Your task to perform on an android device: Search for 5 star sushi restaurants on Maps Image 0: 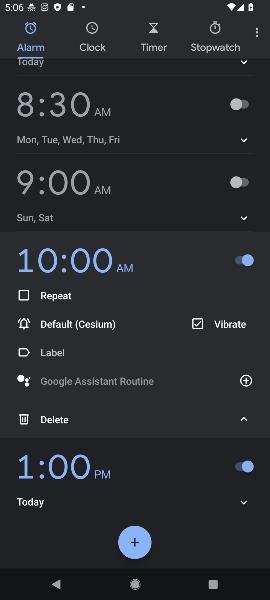
Step 0: press home button
Your task to perform on an android device: Search for 5 star sushi restaurants on Maps Image 1: 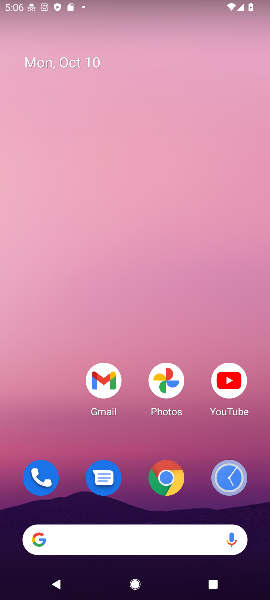
Step 1: drag from (124, 495) to (178, 90)
Your task to perform on an android device: Search for 5 star sushi restaurants on Maps Image 2: 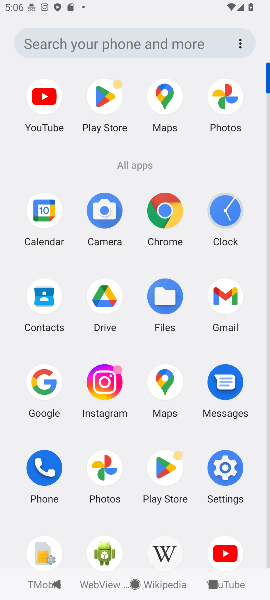
Step 2: click (164, 97)
Your task to perform on an android device: Search for 5 star sushi restaurants on Maps Image 3: 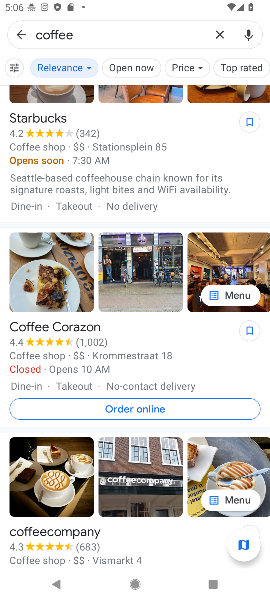
Step 3: click (87, 29)
Your task to perform on an android device: Search for 5 star sushi restaurants on Maps Image 4: 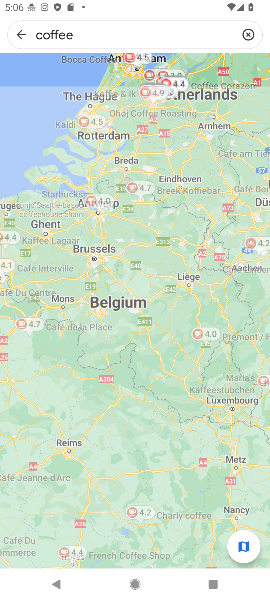
Step 4: click (223, 34)
Your task to perform on an android device: Search for 5 star sushi restaurants on Maps Image 5: 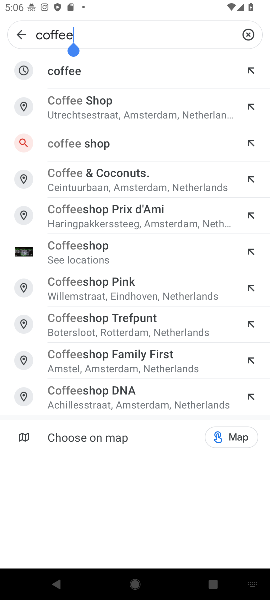
Step 5: click (246, 29)
Your task to perform on an android device: Search for 5 star sushi restaurants on Maps Image 6: 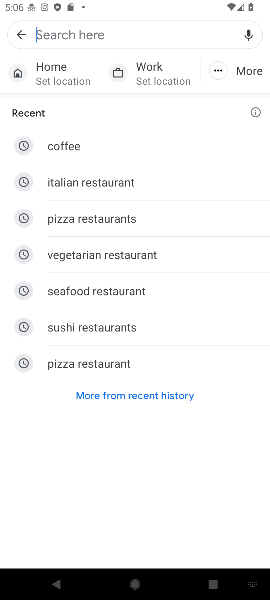
Step 6: type "Search for 5 star sushi restaurants on Maps"
Your task to perform on an android device: Search for 5 star sushi restaurants on Maps Image 7: 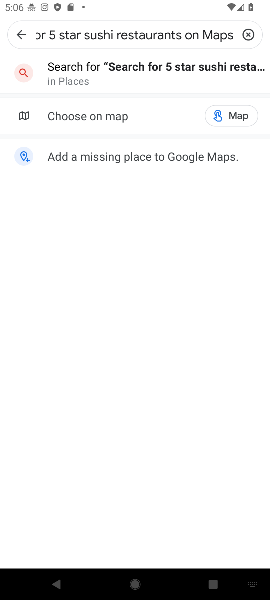
Step 7: click (45, 72)
Your task to perform on an android device: Search for 5 star sushi restaurants on Maps Image 8: 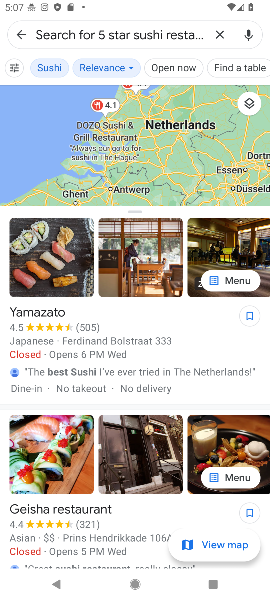
Step 8: task complete